Your task to perform on an android device: add a label to a message in the gmail app Image 0: 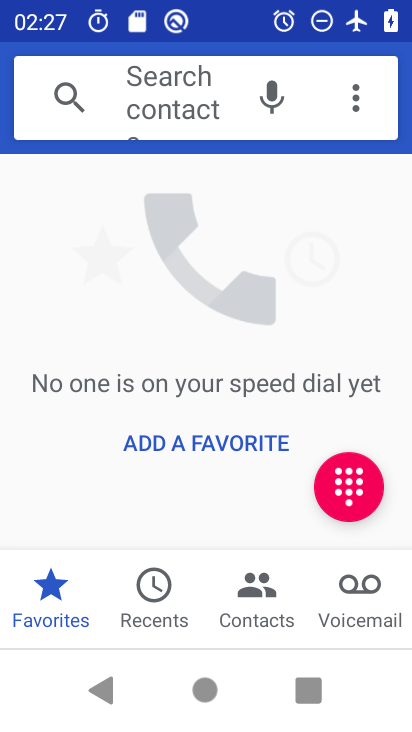
Step 0: press home button
Your task to perform on an android device: add a label to a message in the gmail app Image 1: 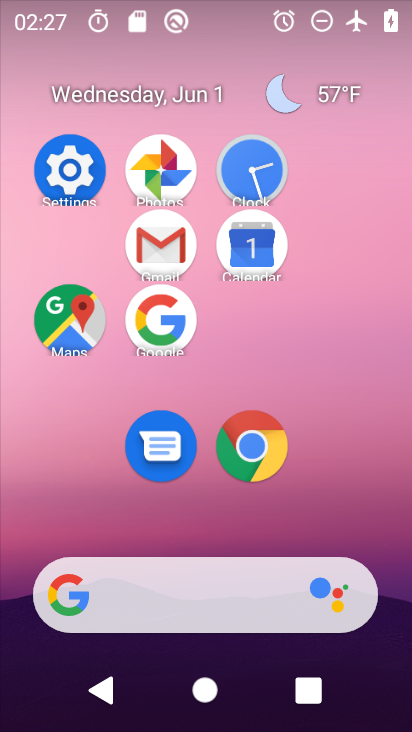
Step 1: click (156, 243)
Your task to perform on an android device: add a label to a message in the gmail app Image 2: 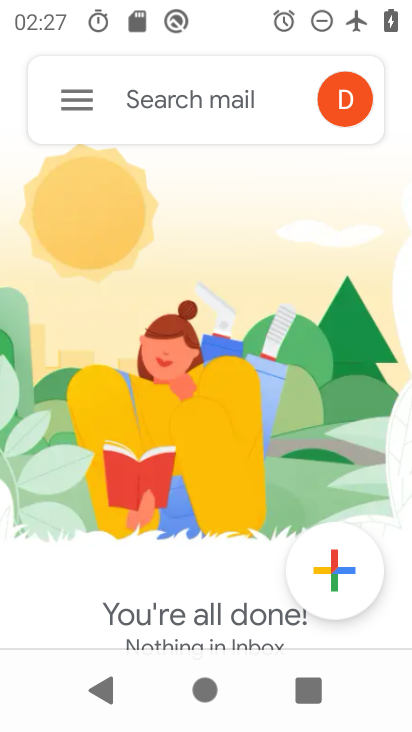
Step 2: click (85, 112)
Your task to perform on an android device: add a label to a message in the gmail app Image 3: 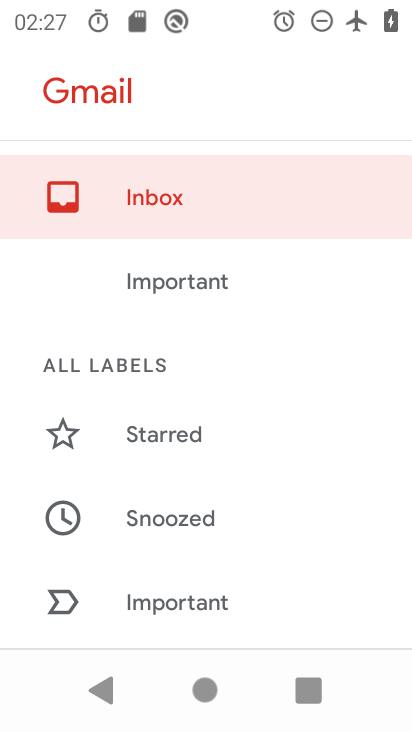
Step 3: drag from (293, 442) to (315, 154)
Your task to perform on an android device: add a label to a message in the gmail app Image 4: 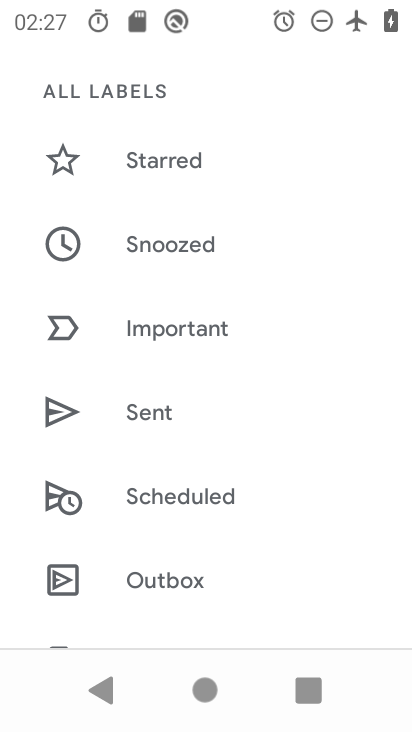
Step 4: drag from (223, 447) to (281, 94)
Your task to perform on an android device: add a label to a message in the gmail app Image 5: 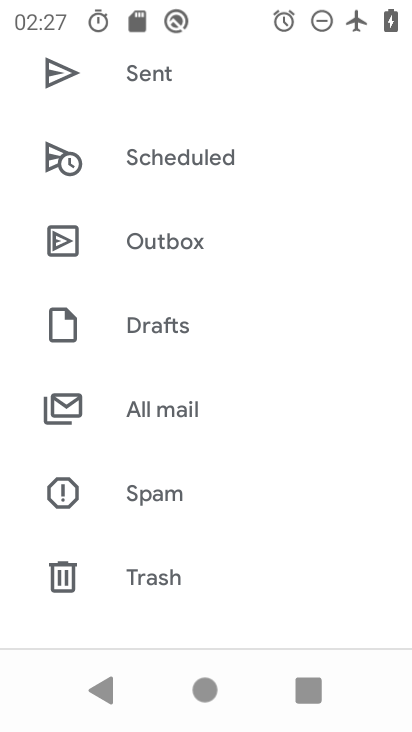
Step 5: click (270, 407)
Your task to perform on an android device: add a label to a message in the gmail app Image 6: 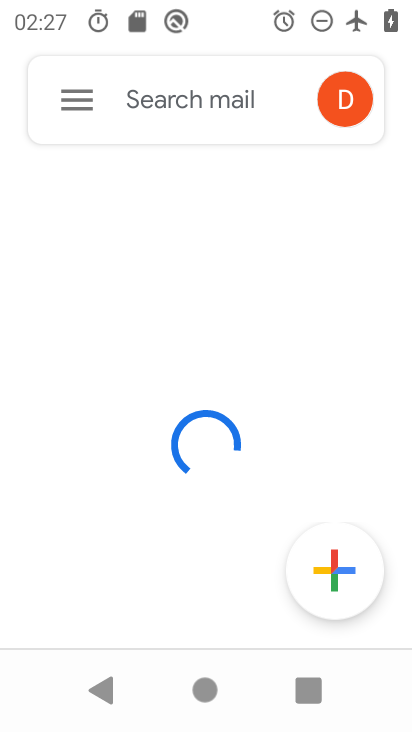
Step 6: task complete